Your task to perform on an android device: empty trash in the gmail app Image 0: 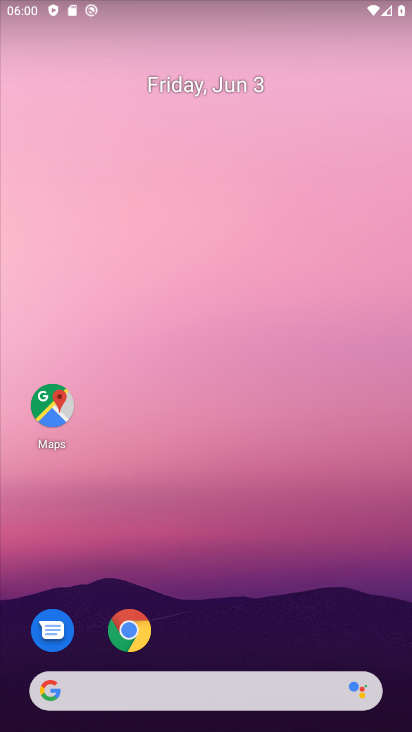
Step 0: drag from (230, 627) to (237, 129)
Your task to perform on an android device: empty trash in the gmail app Image 1: 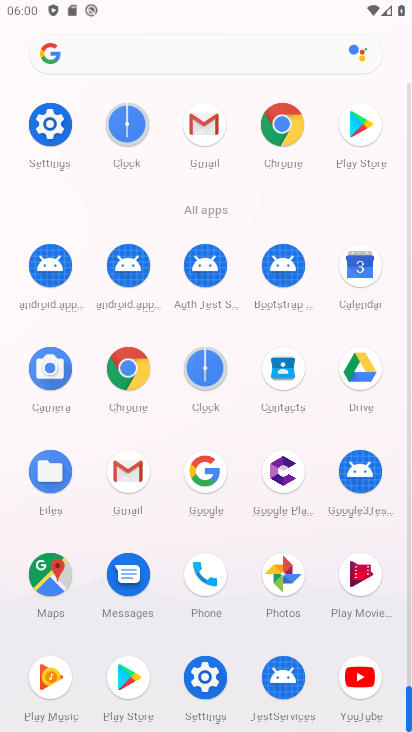
Step 1: click (202, 108)
Your task to perform on an android device: empty trash in the gmail app Image 2: 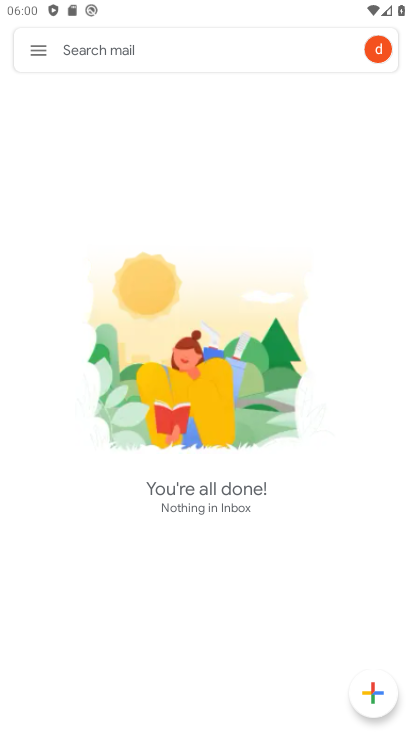
Step 2: click (51, 55)
Your task to perform on an android device: empty trash in the gmail app Image 3: 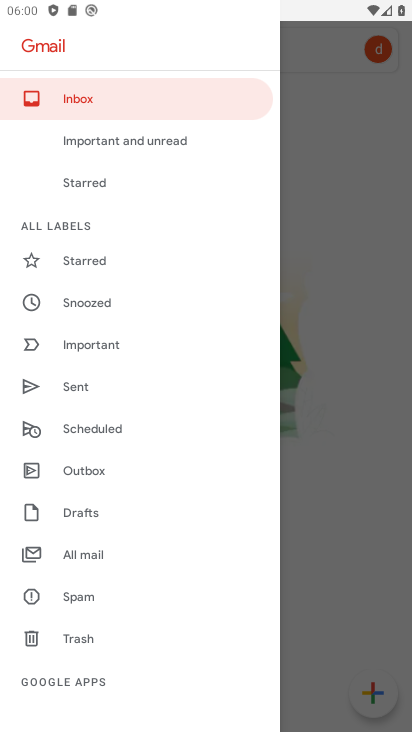
Step 3: click (112, 632)
Your task to perform on an android device: empty trash in the gmail app Image 4: 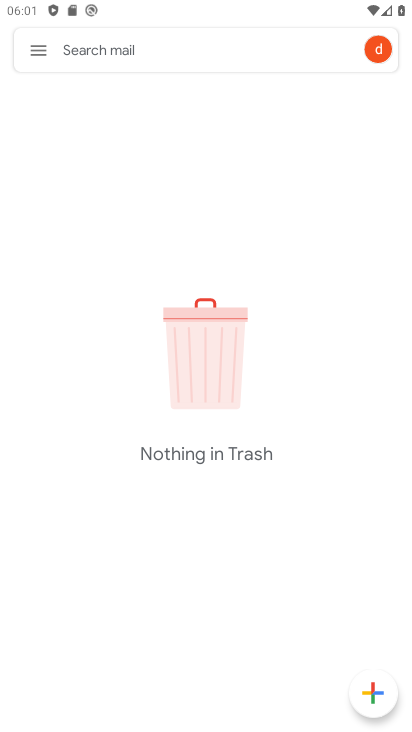
Step 4: task complete